Your task to perform on an android device: turn off data saver in the chrome app Image 0: 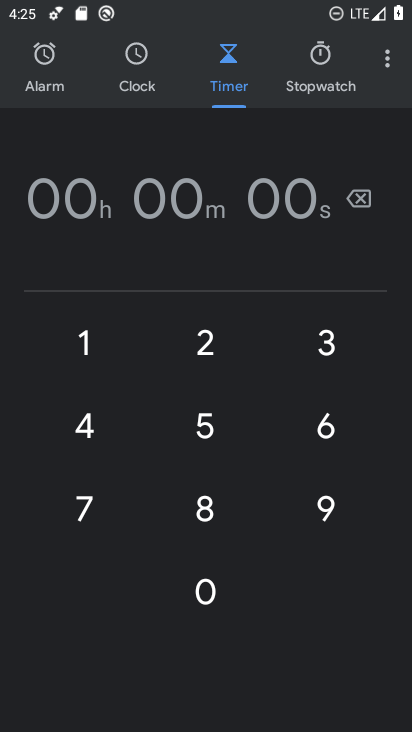
Step 0: press home button
Your task to perform on an android device: turn off data saver in the chrome app Image 1: 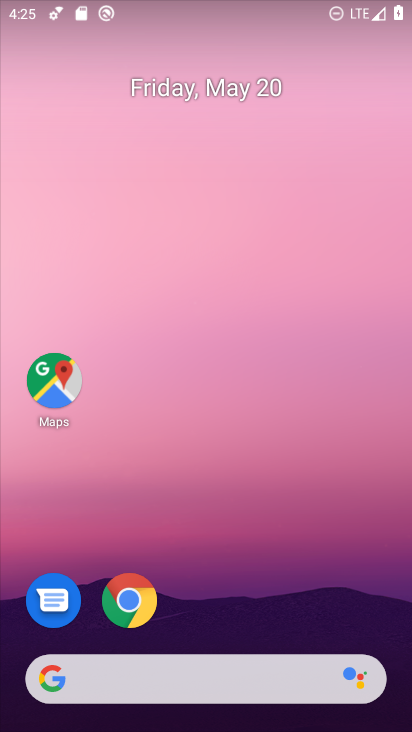
Step 1: click (154, 603)
Your task to perform on an android device: turn off data saver in the chrome app Image 2: 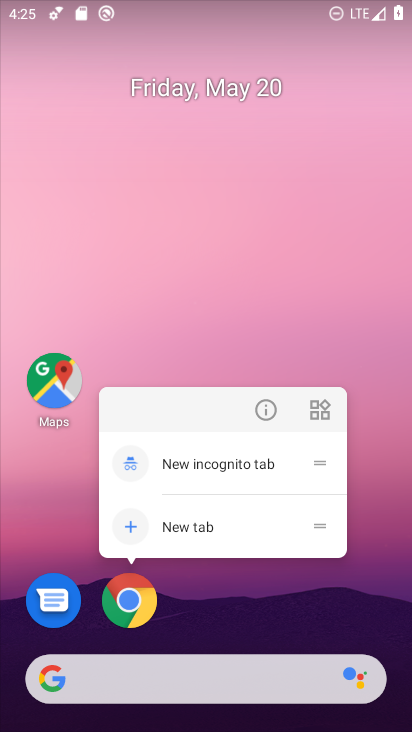
Step 2: click (126, 609)
Your task to perform on an android device: turn off data saver in the chrome app Image 3: 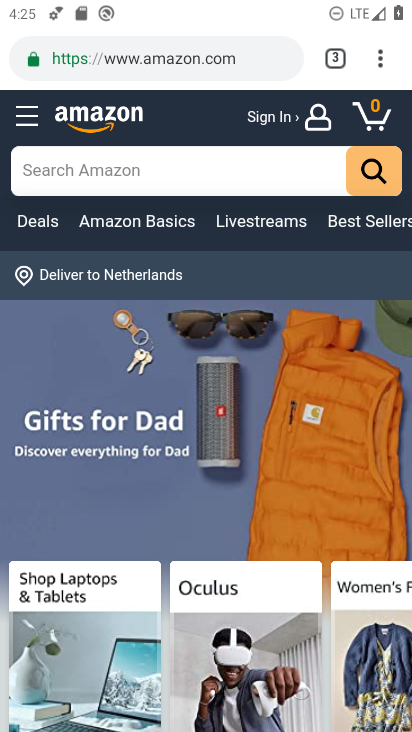
Step 3: drag from (381, 58) to (181, 616)
Your task to perform on an android device: turn off data saver in the chrome app Image 4: 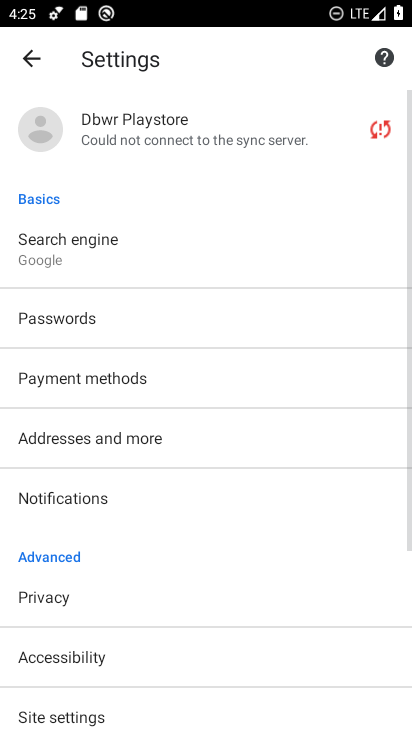
Step 4: drag from (116, 686) to (222, 215)
Your task to perform on an android device: turn off data saver in the chrome app Image 5: 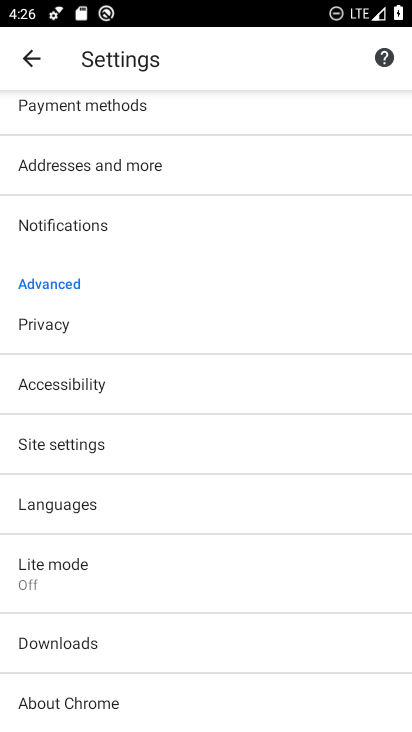
Step 5: click (75, 573)
Your task to perform on an android device: turn off data saver in the chrome app Image 6: 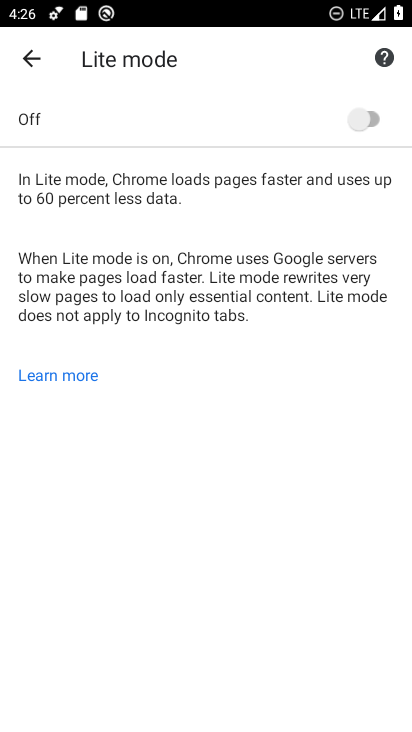
Step 6: task complete